Your task to perform on an android device: Open Google Maps and go to "Timeline" Image 0: 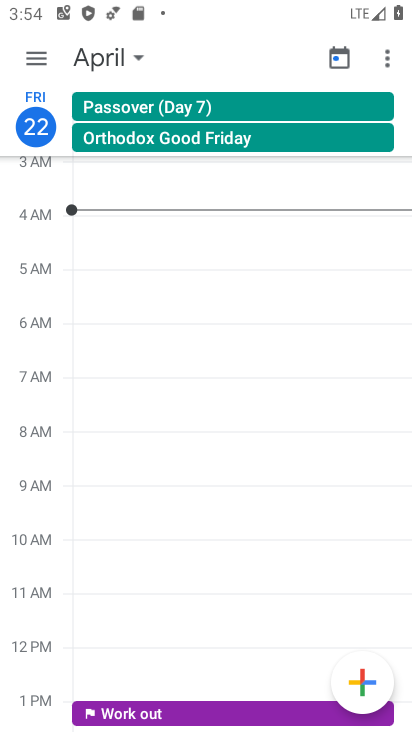
Step 0: click (29, 61)
Your task to perform on an android device: Open Google Maps and go to "Timeline" Image 1: 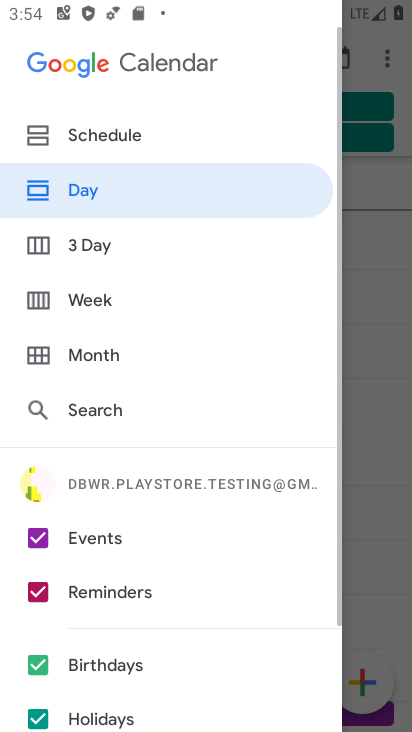
Step 1: click (120, 197)
Your task to perform on an android device: Open Google Maps and go to "Timeline" Image 2: 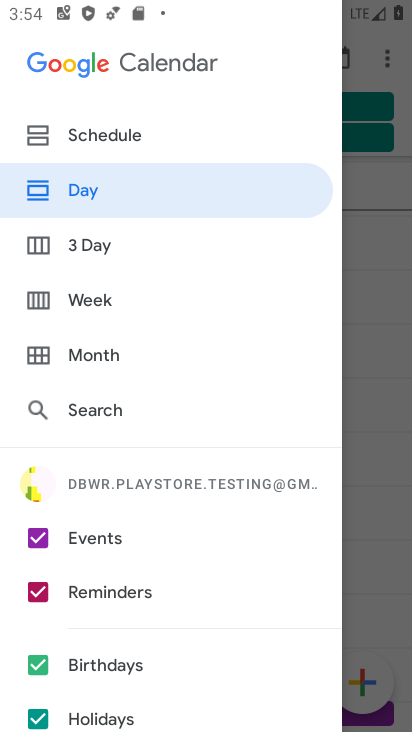
Step 2: click (373, 348)
Your task to perform on an android device: Open Google Maps and go to "Timeline" Image 3: 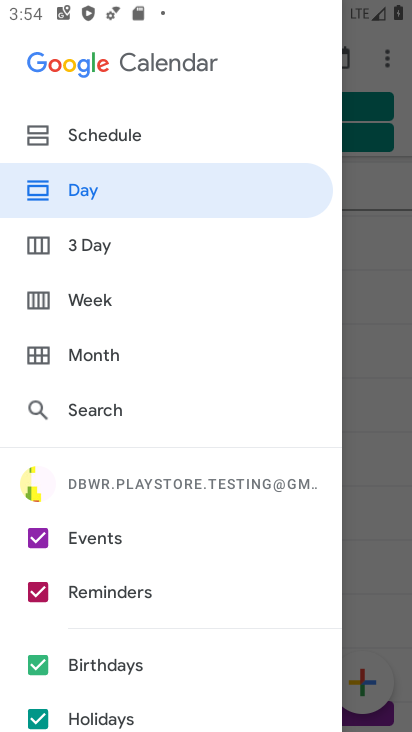
Step 3: click (373, 348)
Your task to perform on an android device: Open Google Maps and go to "Timeline" Image 4: 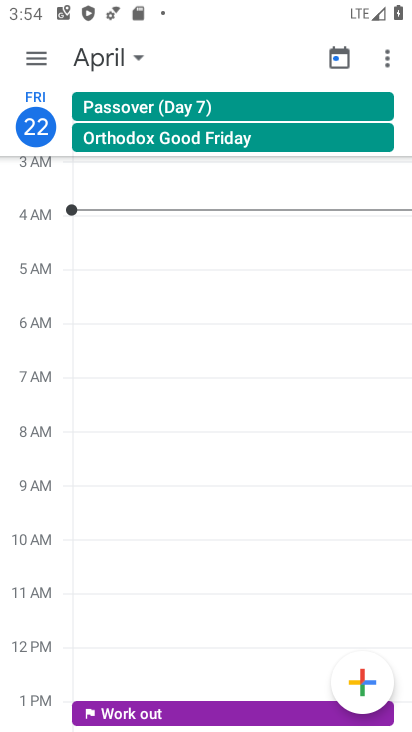
Step 4: press home button
Your task to perform on an android device: Open Google Maps and go to "Timeline" Image 5: 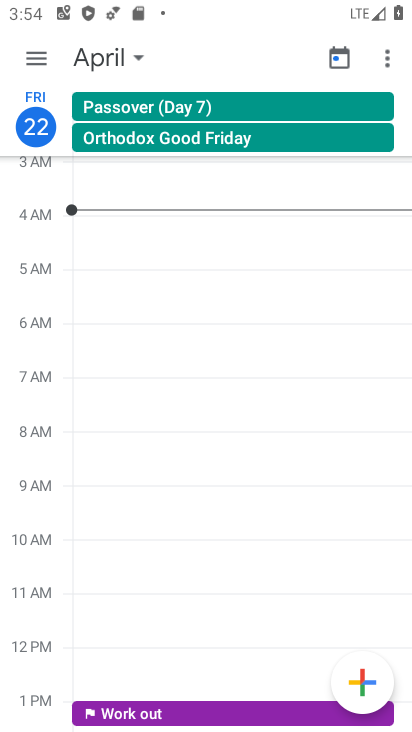
Step 5: press home button
Your task to perform on an android device: Open Google Maps and go to "Timeline" Image 6: 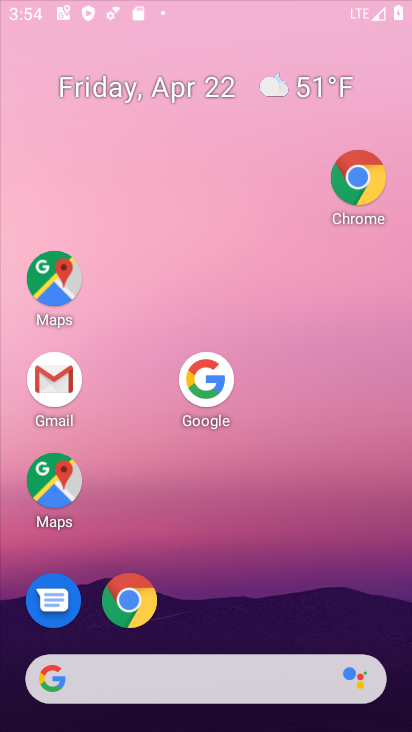
Step 6: press home button
Your task to perform on an android device: Open Google Maps and go to "Timeline" Image 7: 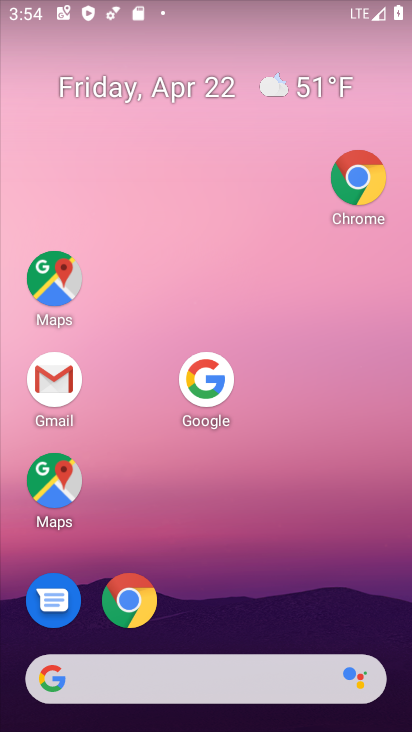
Step 7: drag from (343, 572) to (139, 150)
Your task to perform on an android device: Open Google Maps and go to "Timeline" Image 8: 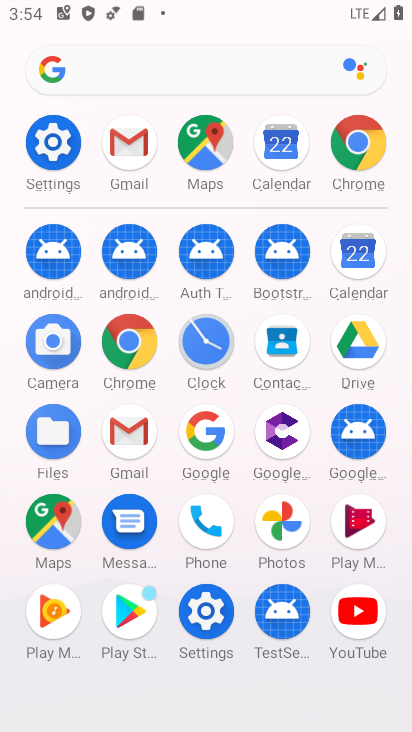
Step 8: click (202, 136)
Your task to perform on an android device: Open Google Maps and go to "Timeline" Image 9: 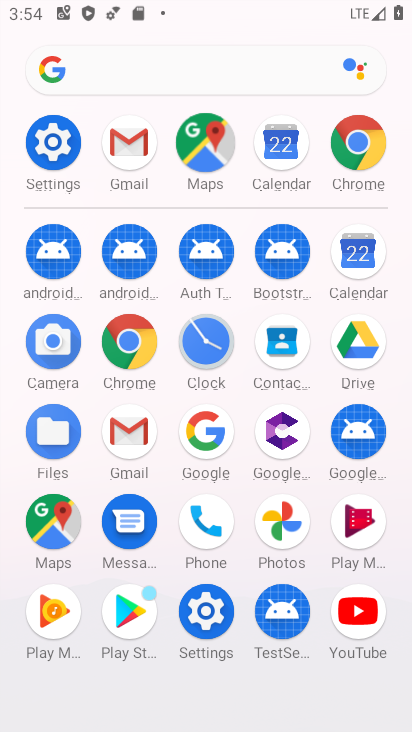
Step 9: click (203, 139)
Your task to perform on an android device: Open Google Maps and go to "Timeline" Image 10: 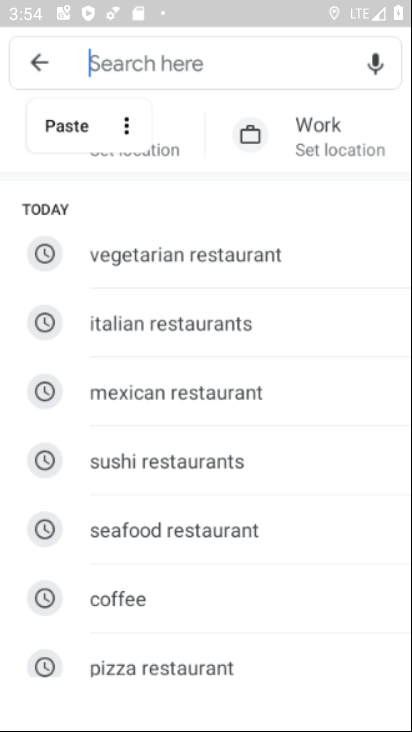
Step 10: click (207, 142)
Your task to perform on an android device: Open Google Maps and go to "Timeline" Image 11: 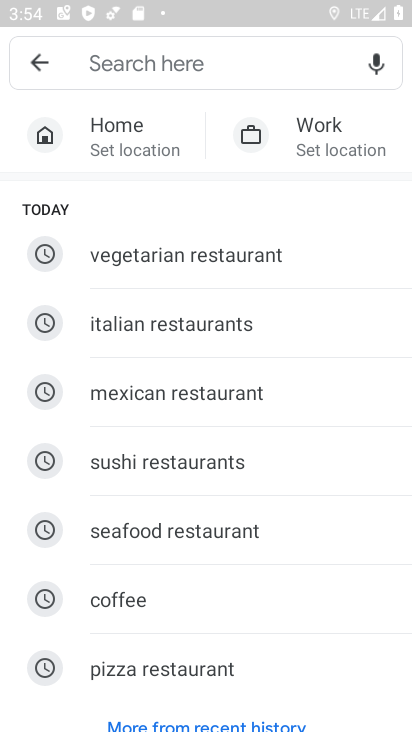
Step 11: click (40, 68)
Your task to perform on an android device: Open Google Maps and go to "Timeline" Image 12: 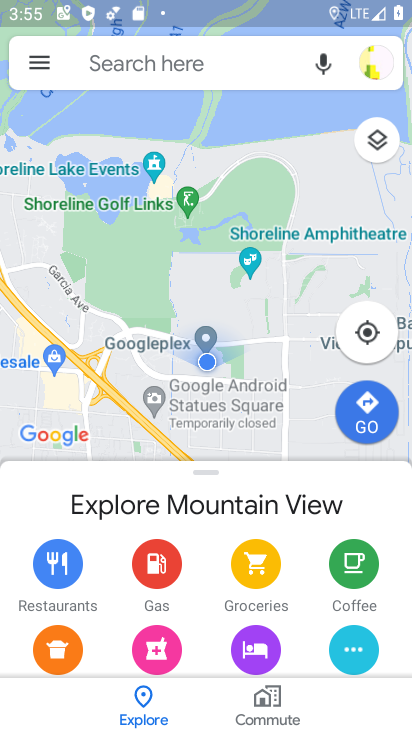
Step 12: click (33, 65)
Your task to perform on an android device: Open Google Maps and go to "Timeline" Image 13: 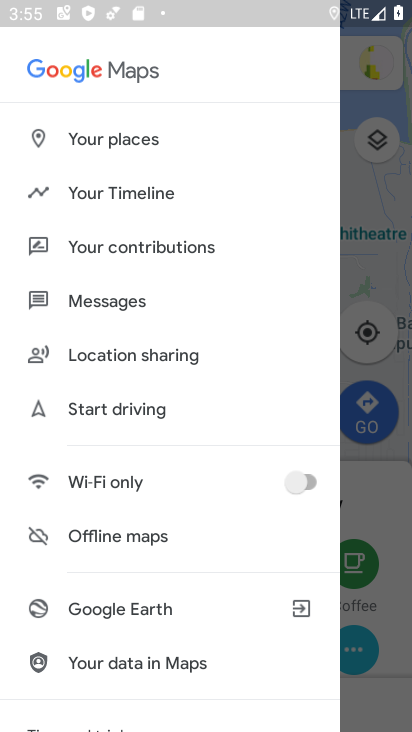
Step 13: click (123, 194)
Your task to perform on an android device: Open Google Maps and go to "Timeline" Image 14: 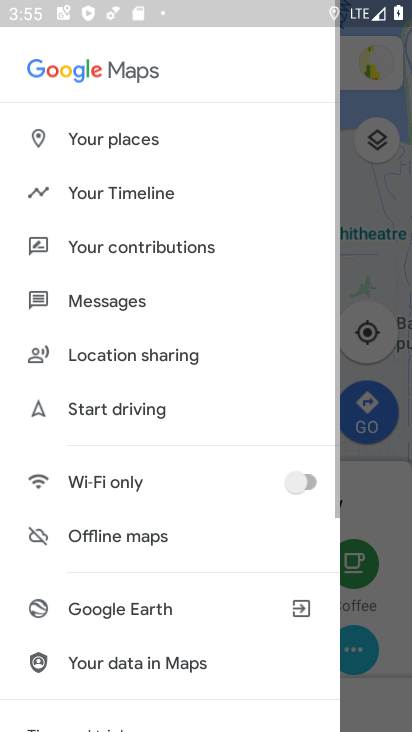
Step 14: click (134, 181)
Your task to perform on an android device: Open Google Maps and go to "Timeline" Image 15: 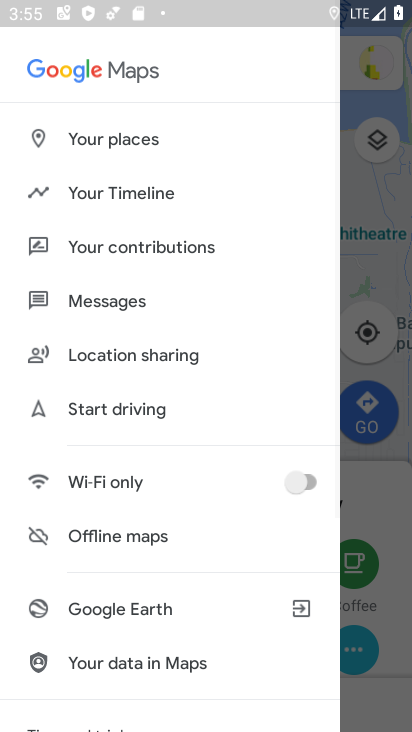
Step 15: task complete